Your task to perform on an android device: turn off javascript in the chrome app Image 0: 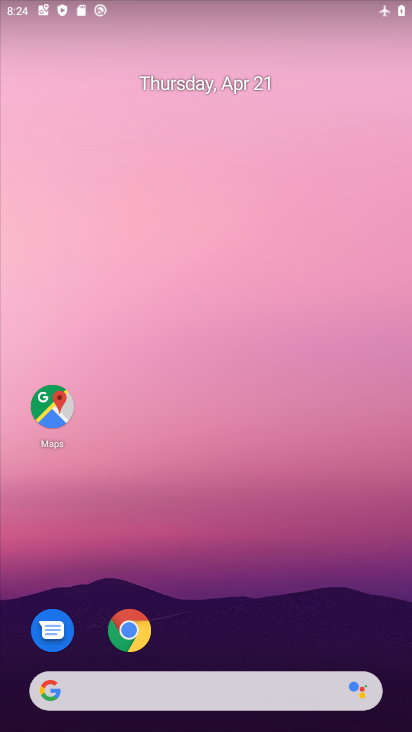
Step 0: click (131, 627)
Your task to perform on an android device: turn off javascript in the chrome app Image 1: 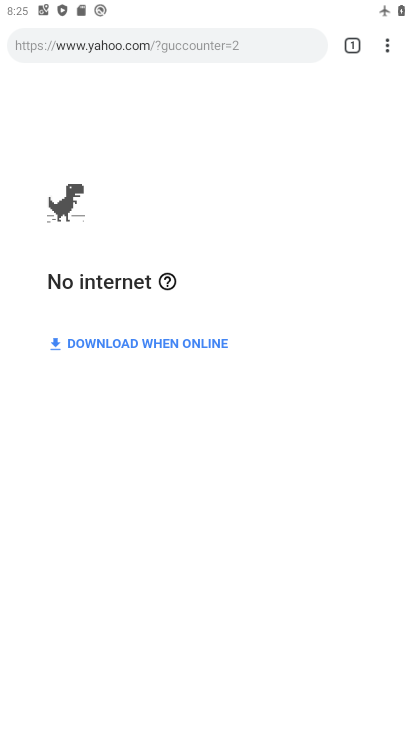
Step 1: click (386, 48)
Your task to perform on an android device: turn off javascript in the chrome app Image 2: 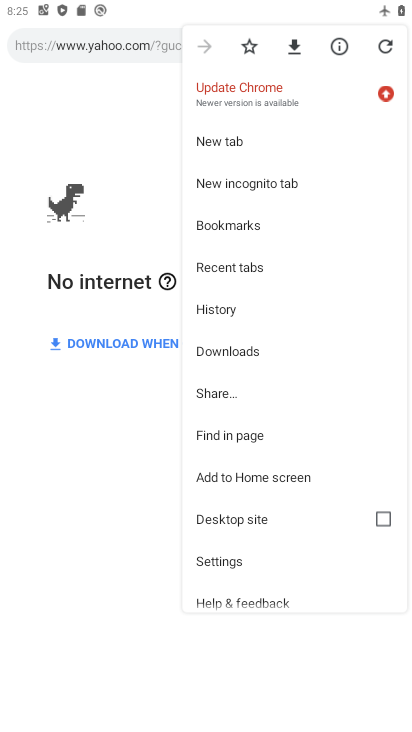
Step 2: click (232, 553)
Your task to perform on an android device: turn off javascript in the chrome app Image 3: 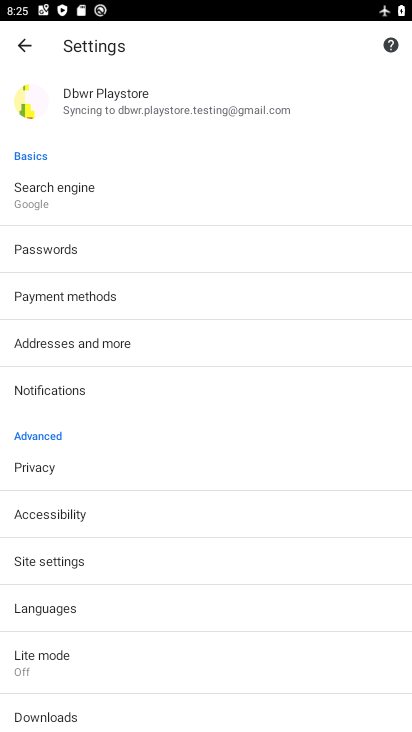
Step 3: click (86, 559)
Your task to perform on an android device: turn off javascript in the chrome app Image 4: 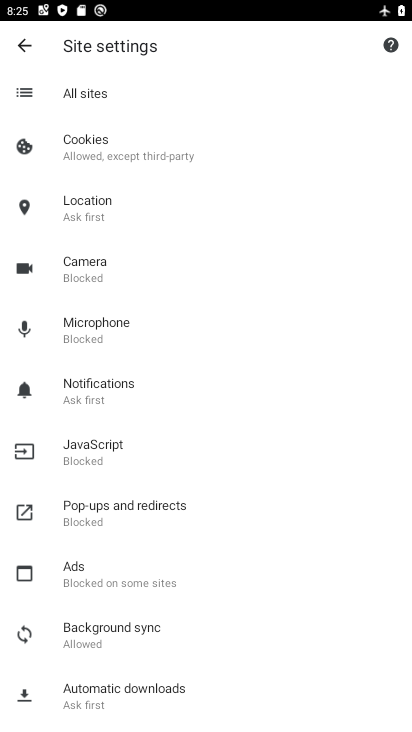
Step 4: click (94, 465)
Your task to perform on an android device: turn off javascript in the chrome app Image 5: 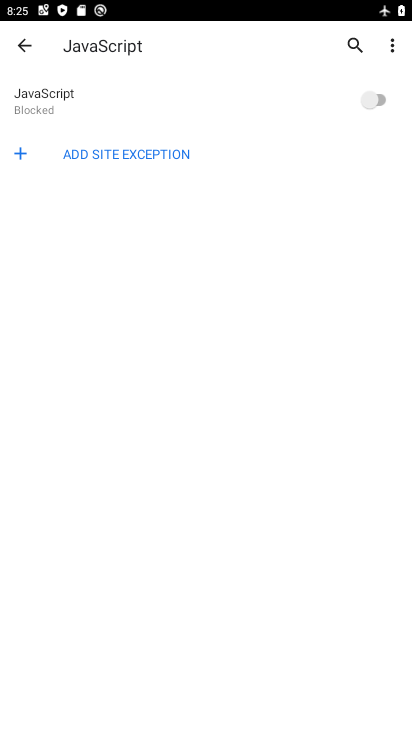
Step 5: task complete